Your task to perform on an android device: Go to notification settings Image 0: 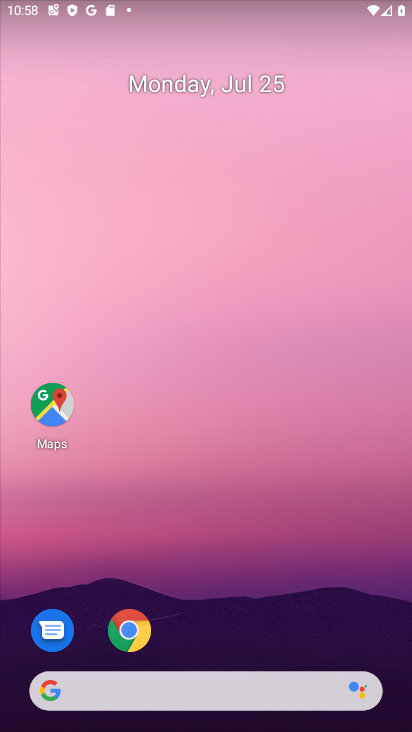
Step 0: drag from (262, 511) to (291, 57)
Your task to perform on an android device: Go to notification settings Image 1: 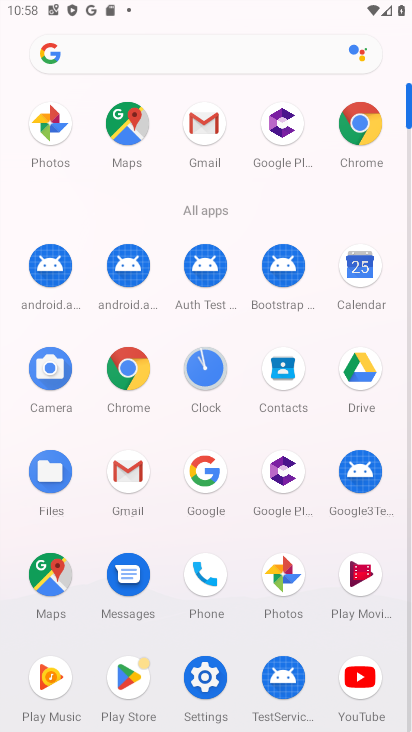
Step 1: click (202, 677)
Your task to perform on an android device: Go to notification settings Image 2: 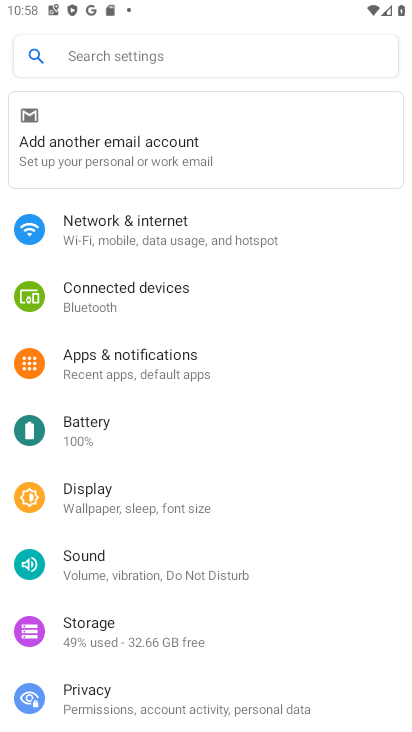
Step 2: click (134, 362)
Your task to perform on an android device: Go to notification settings Image 3: 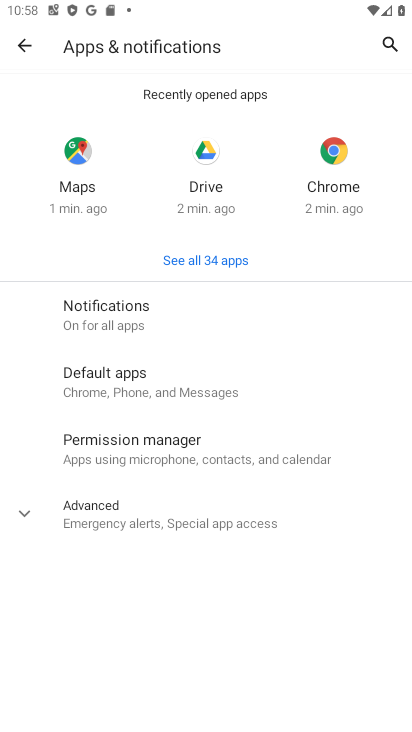
Step 3: click (111, 305)
Your task to perform on an android device: Go to notification settings Image 4: 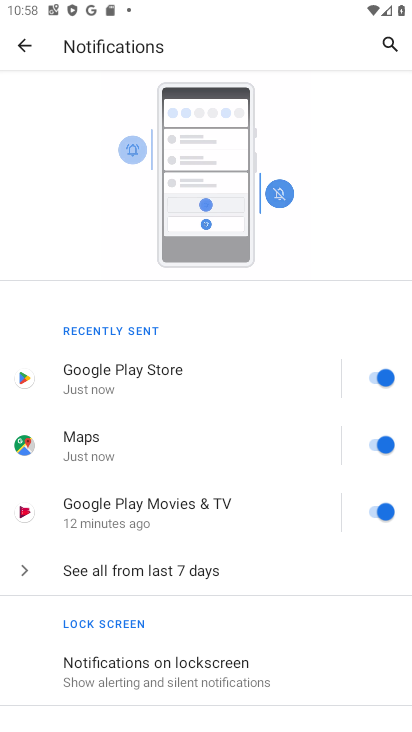
Step 4: task complete